Your task to perform on an android device: open app "Lyft - Rideshare, Bikes, Scooters & Transit" (install if not already installed) Image 0: 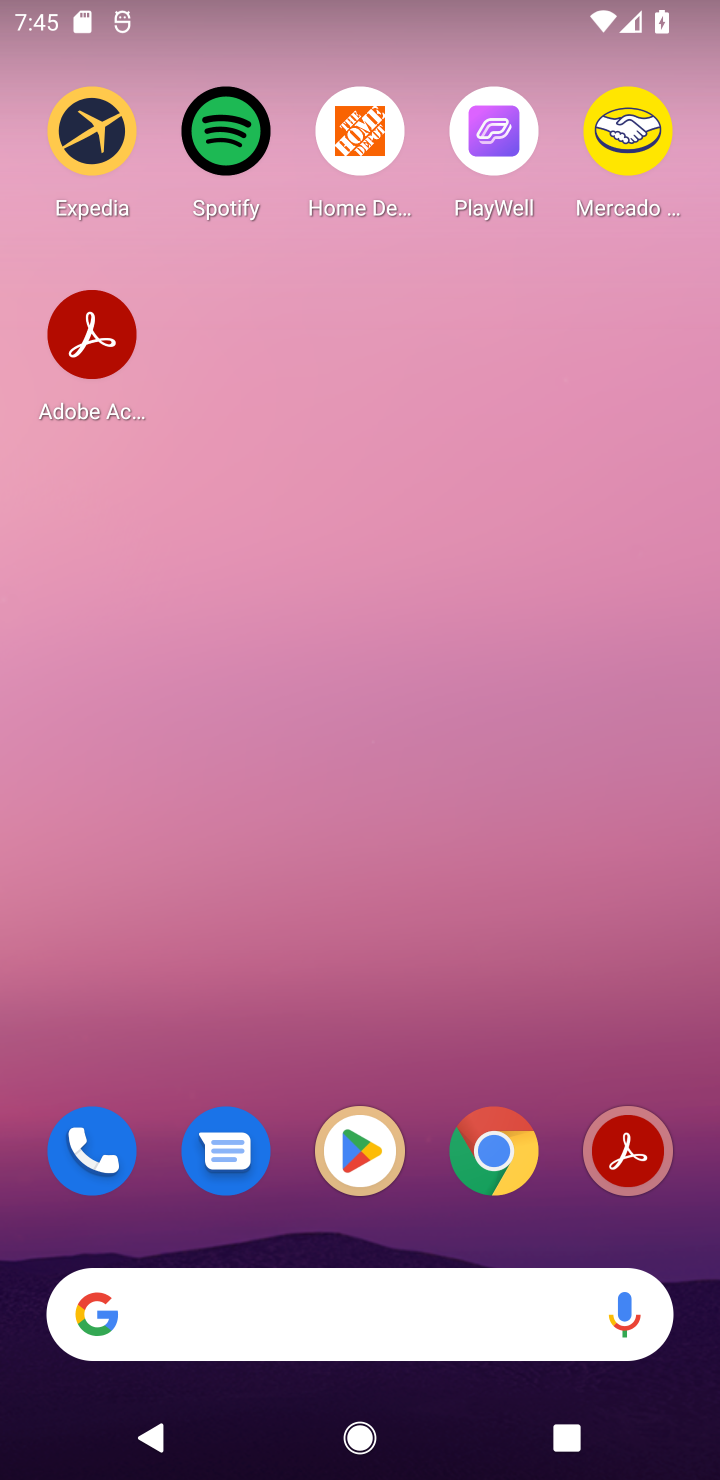
Step 0: click (361, 1152)
Your task to perform on an android device: open app "Lyft - Rideshare, Bikes, Scooters & Transit" (install if not already installed) Image 1: 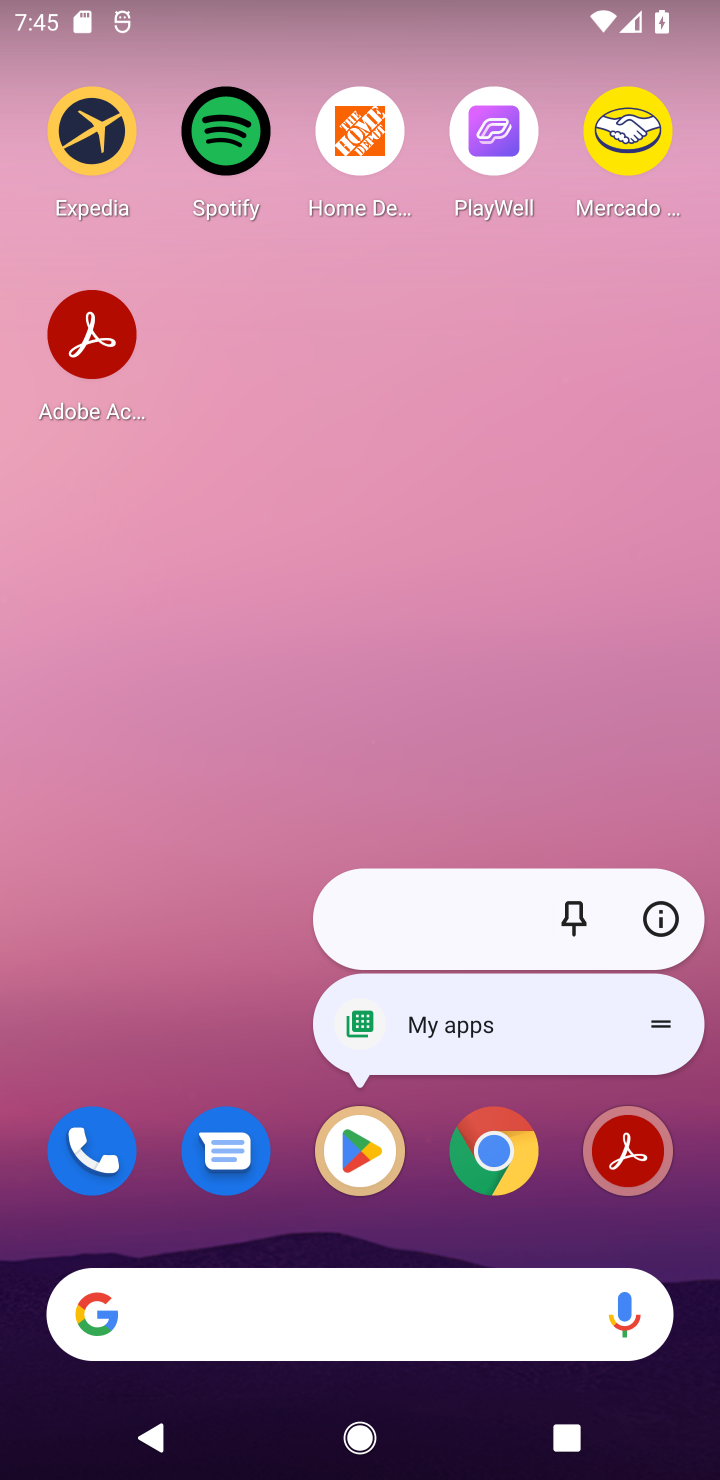
Step 1: click (386, 1242)
Your task to perform on an android device: open app "Lyft - Rideshare, Bikes, Scooters & Transit" (install if not already installed) Image 2: 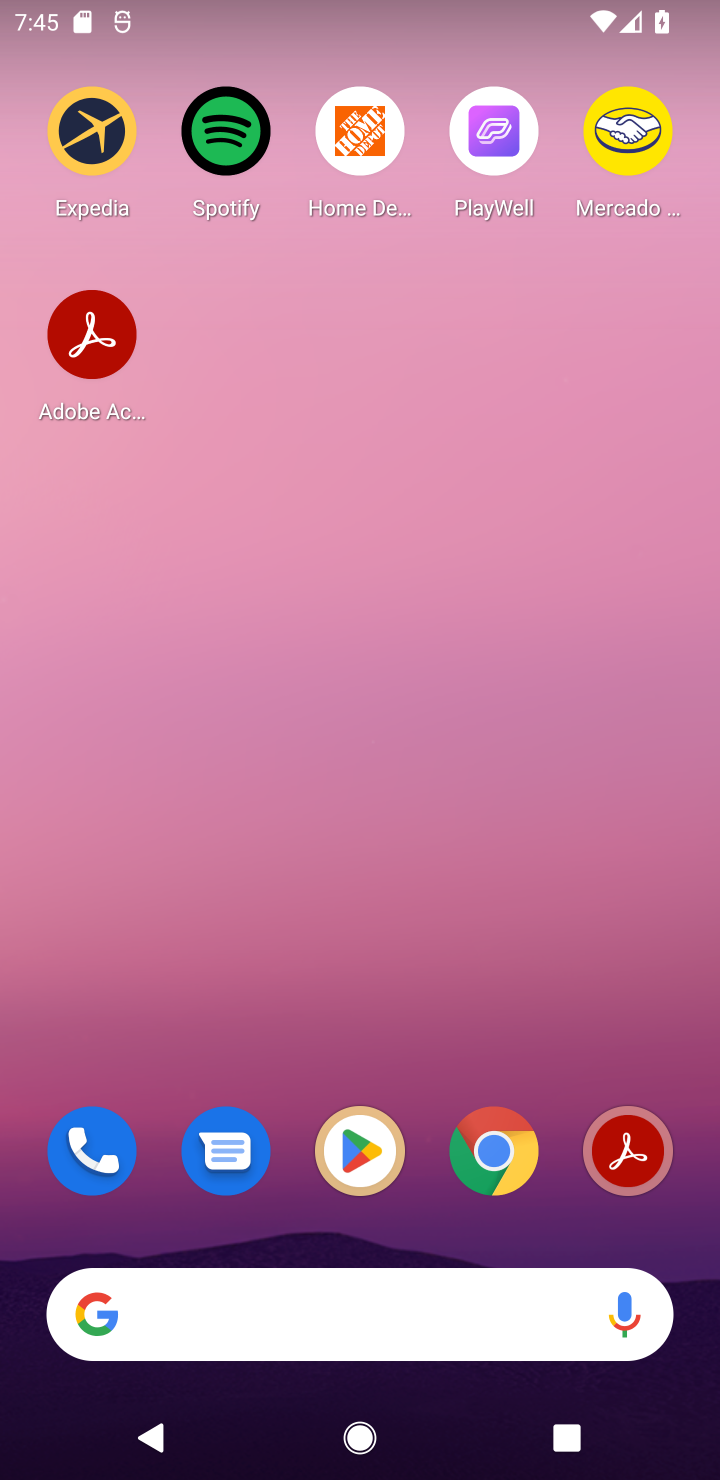
Step 2: click (366, 1139)
Your task to perform on an android device: open app "Lyft - Rideshare, Bikes, Scooters & Transit" (install if not already installed) Image 3: 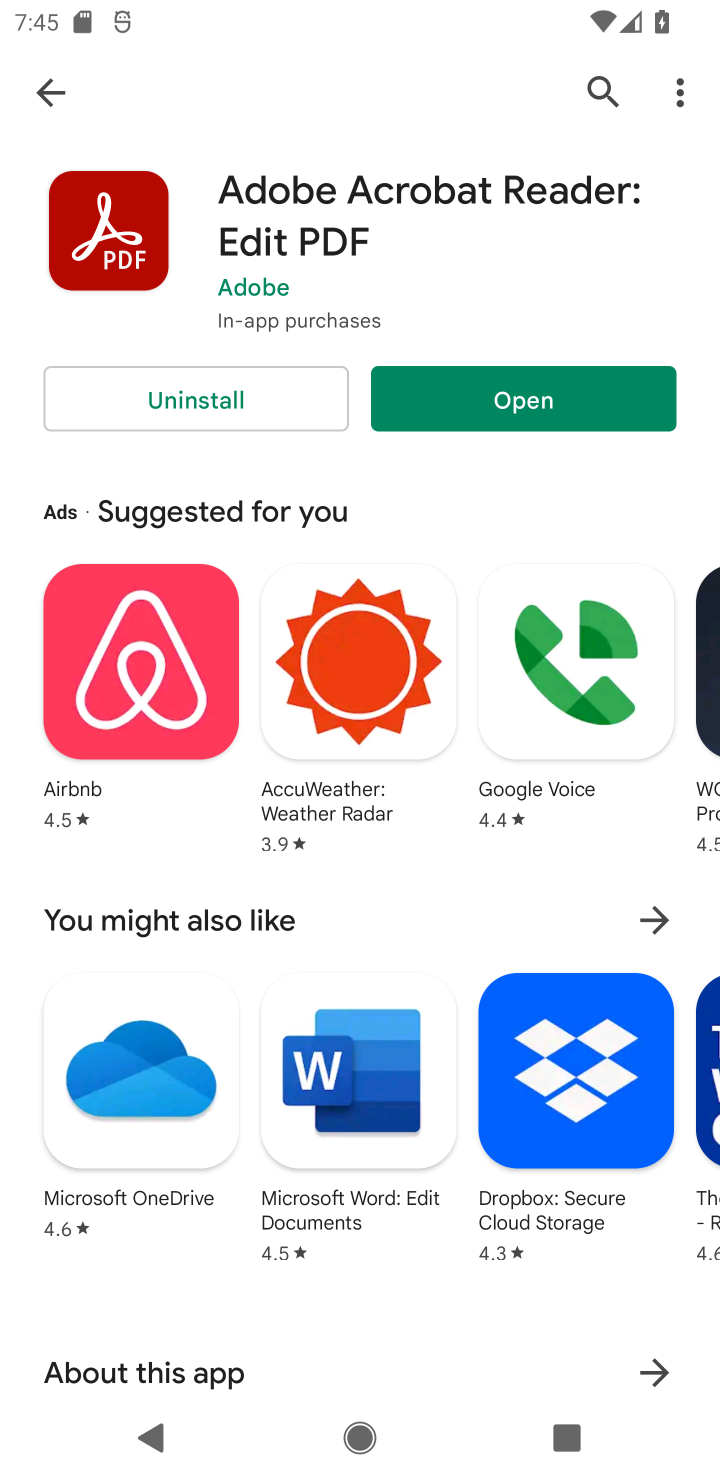
Step 3: click (599, 78)
Your task to perform on an android device: open app "Lyft - Rideshare, Bikes, Scooters & Transit" (install if not already installed) Image 4: 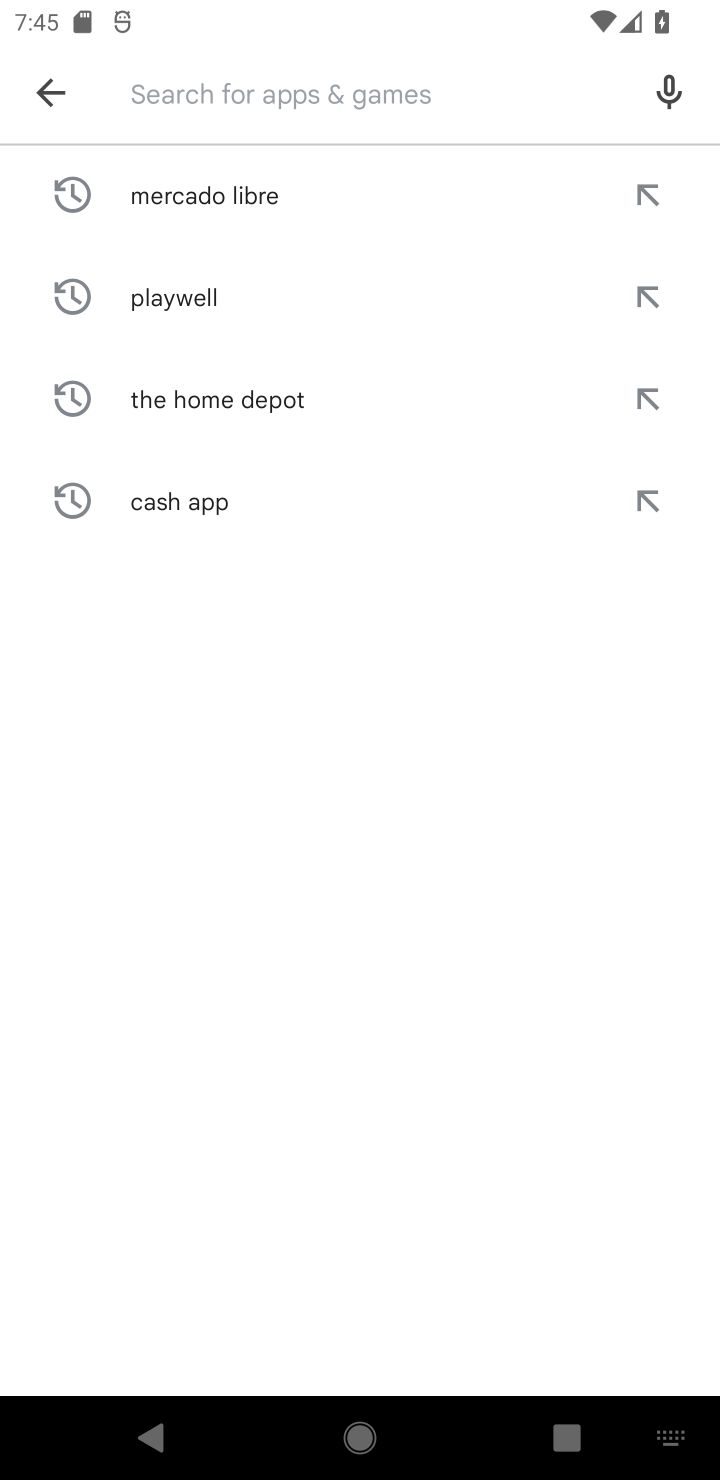
Step 4: type "Lyft - Rideshare, Bikes, Scooters & Transit"
Your task to perform on an android device: open app "Lyft - Rideshare, Bikes, Scooters & Transit" (install if not already installed) Image 5: 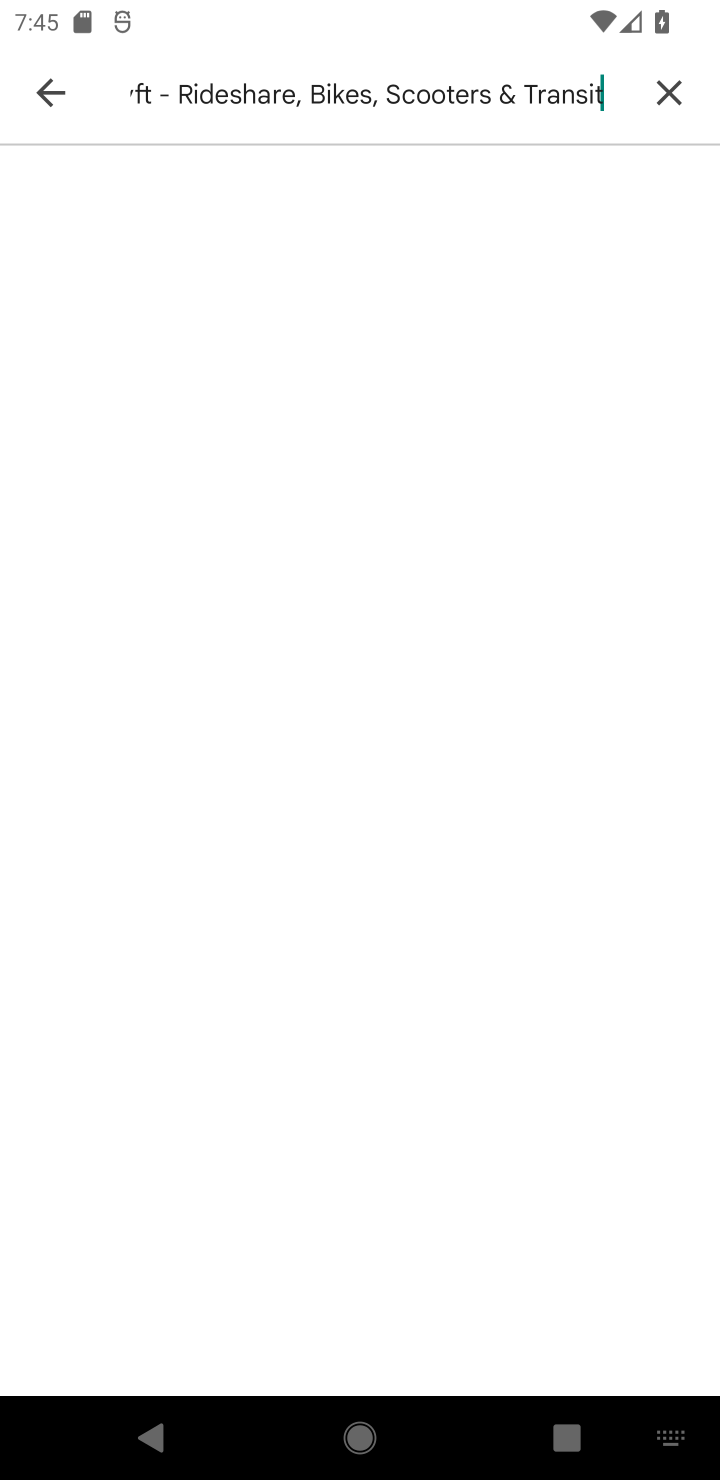
Step 5: task complete